Your task to perform on an android device: What's the weather going to be this weekend? Image 0: 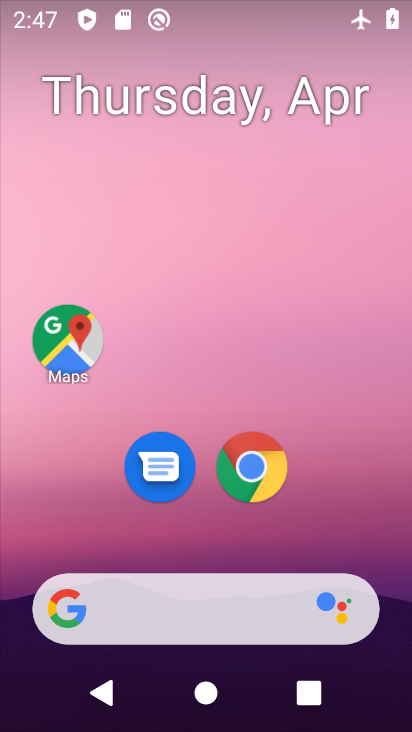
Step 0: click (250, 621)
Your task to perform on an android device: What's the weather going to be this weekend? Image 1: 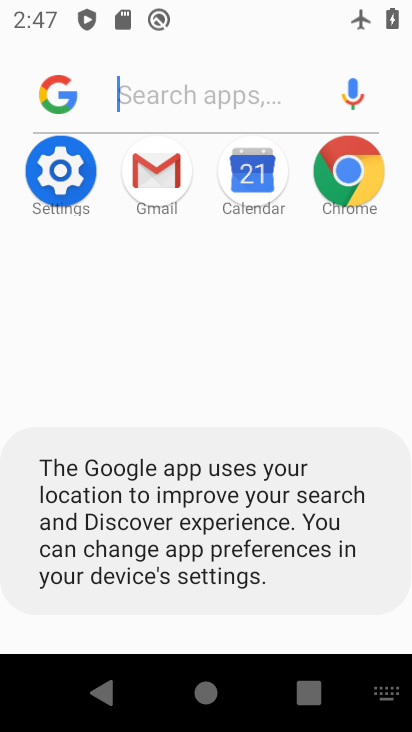
Step 1: click (54, 80)
Your task to perform on an android device: What's the weather going to be this weekend? Image 2: 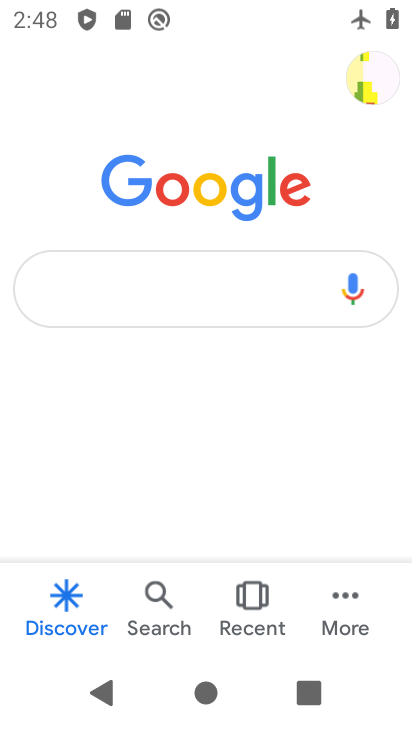
Step 2: click (261, 304)
Your task to perform on an android device: What's the weather going to be this weekend? Image 3: 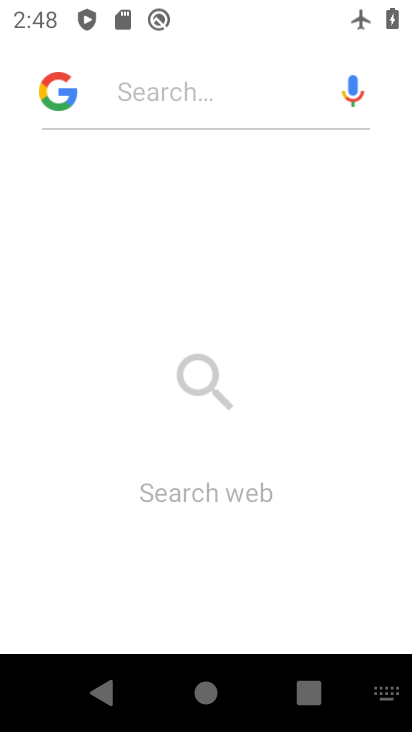
Step 3: type "weather"
Your task to perform on an android device: What's the weather going to be this weekend? Image 4: 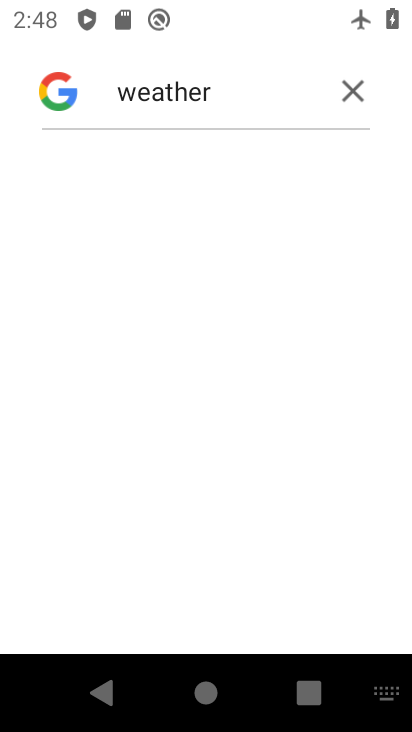
Step 4: task complete